Your task to perform on an android device: Clear the shopping cart on ebay. Image 0: 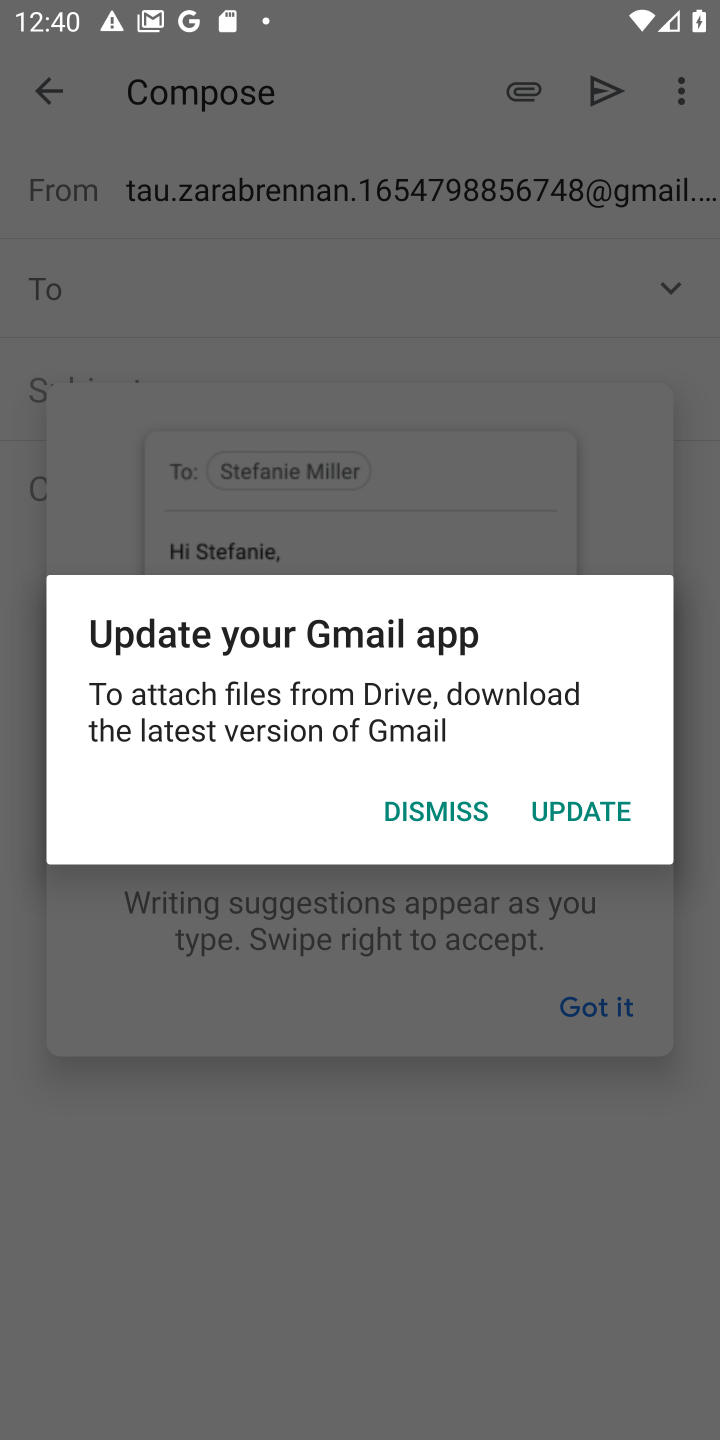
Step 0: click (432, 828)
Your task to perform on an android device: Clear the shopping cart on ebay. Image 1: 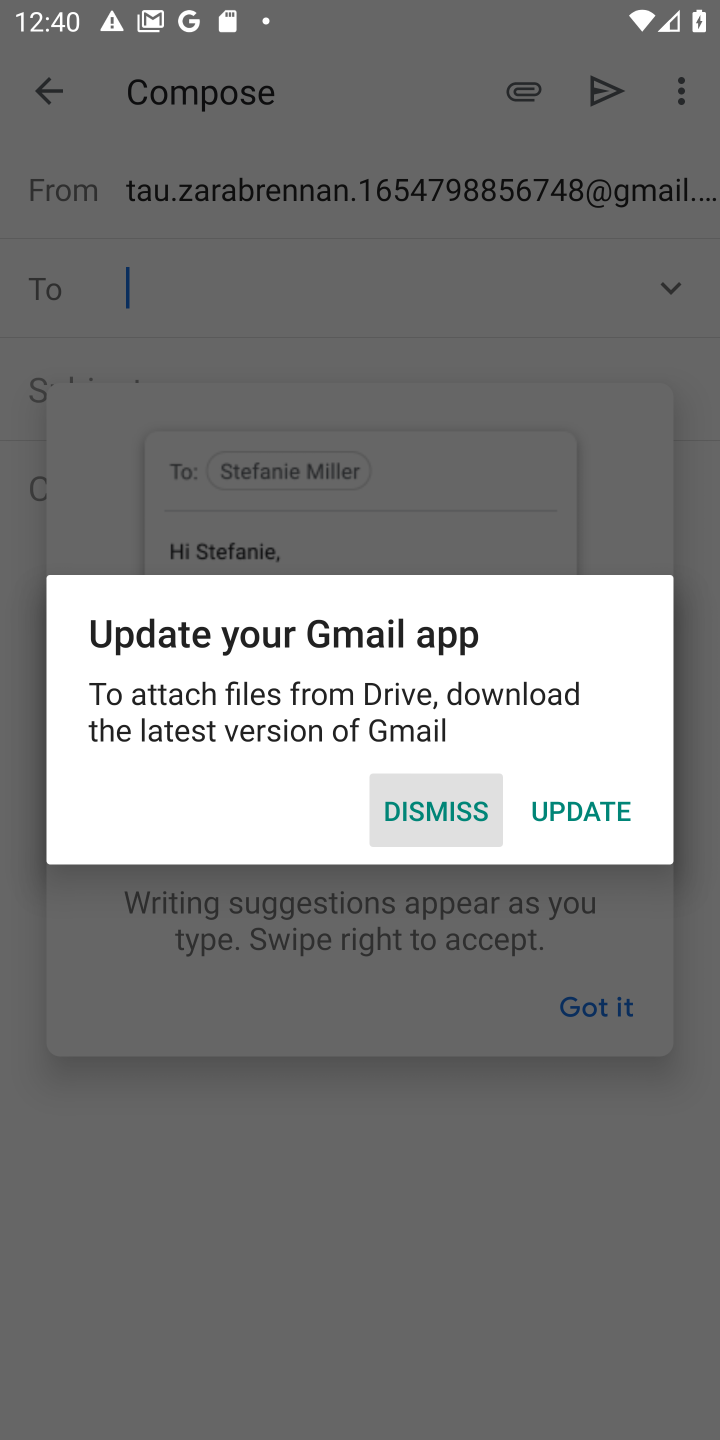
Step 1: press home button
Your task to perform on an android device: Clear the shopping cart on ebay. Image 2: 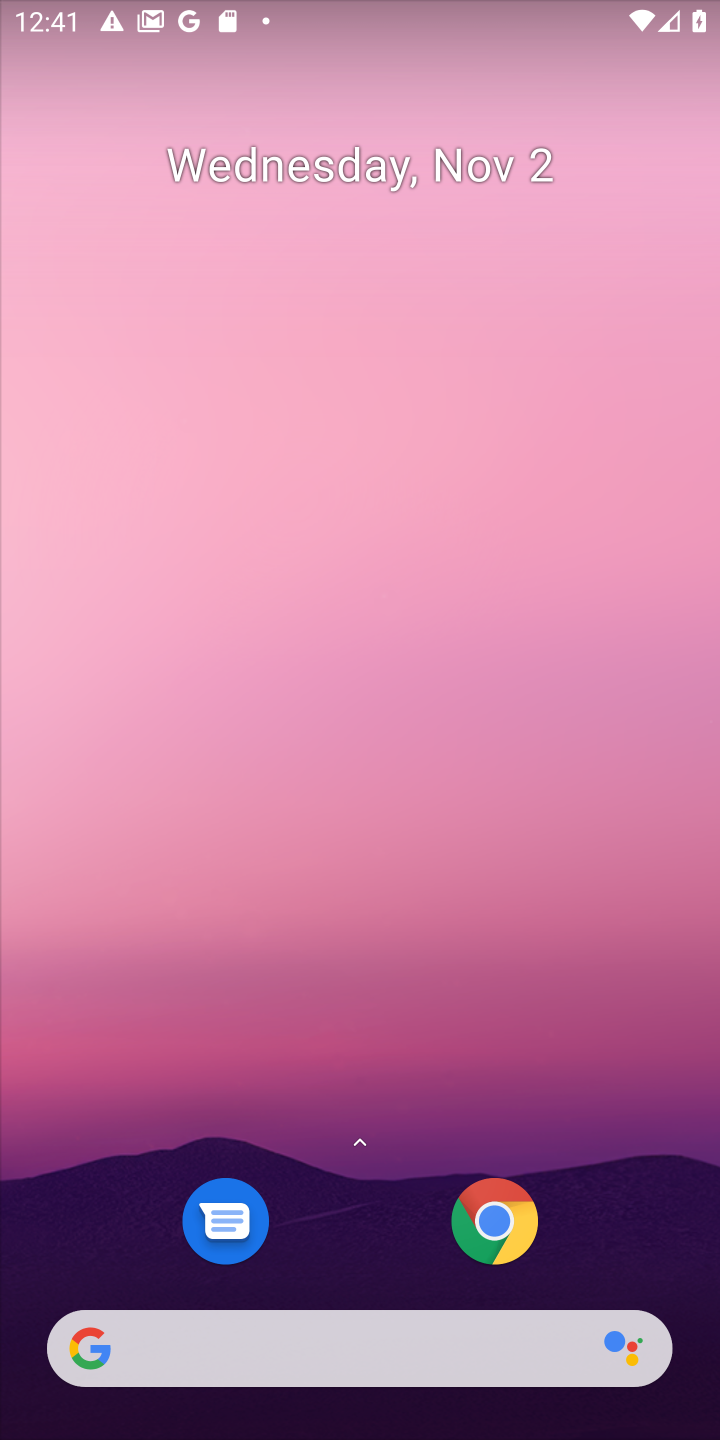
Step 2: click (284, 1360)
Your task to perform on an android device: Clear the shopping cart on ebay. Image 3: 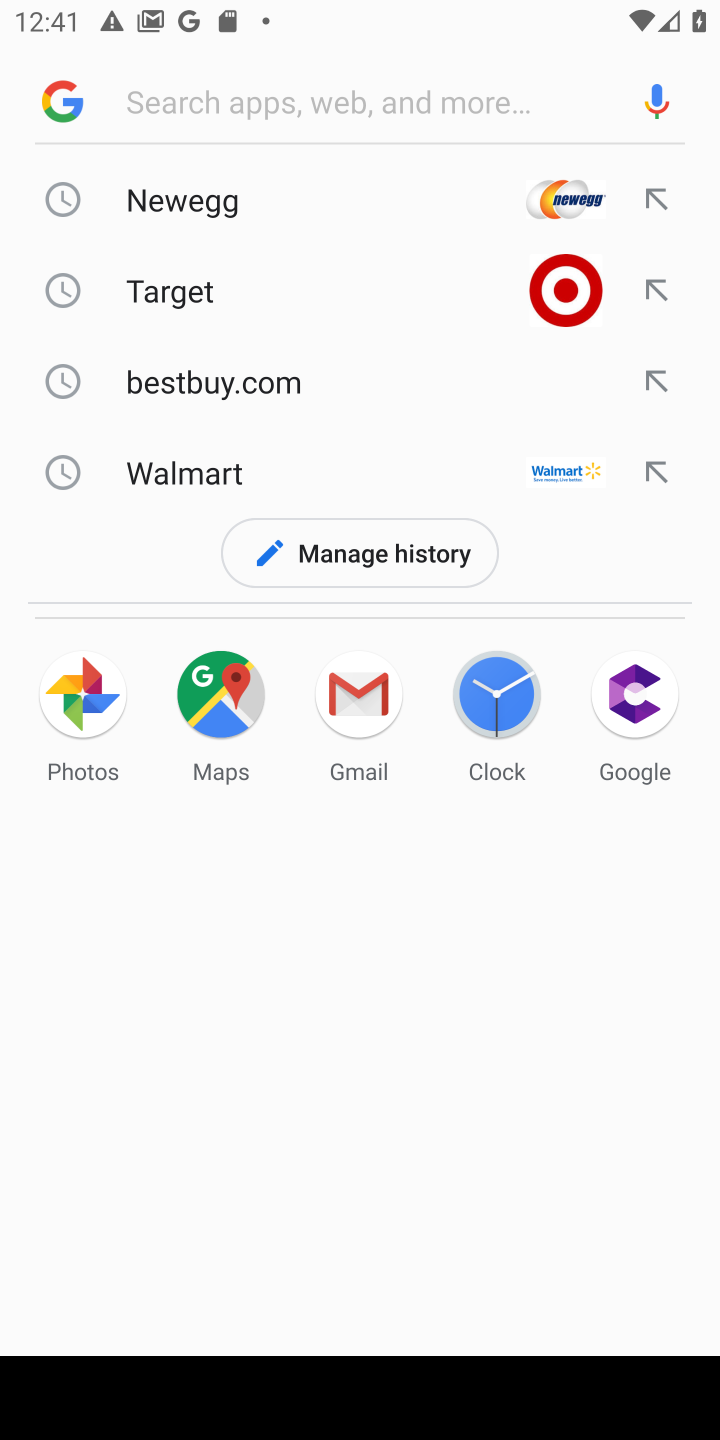
Step 3: type "ebay.com"
Your task to perform on an android device: Clear the shopping cart on ebay. Image 4: 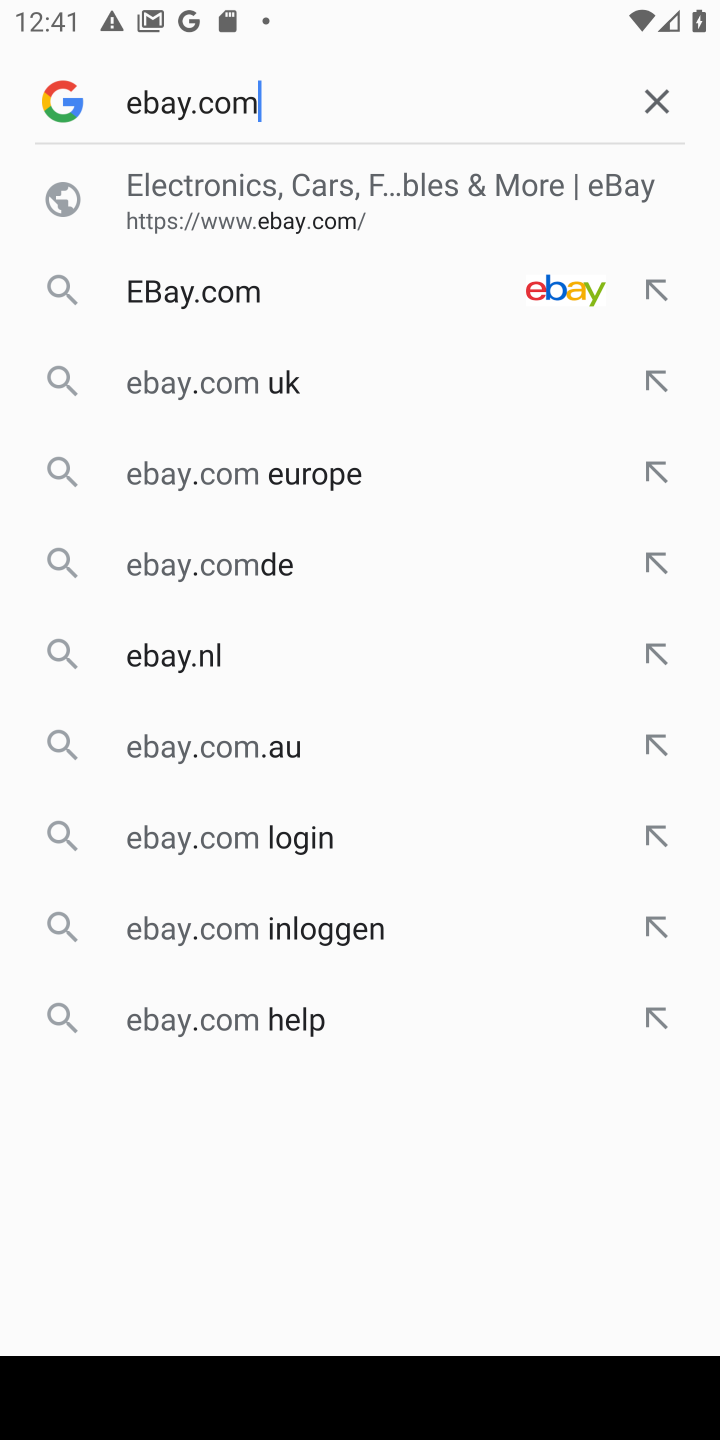
Step 4: click (273, 202)
Your task to perform on an android device: Clear the shopping cart on ebay. Image 5: 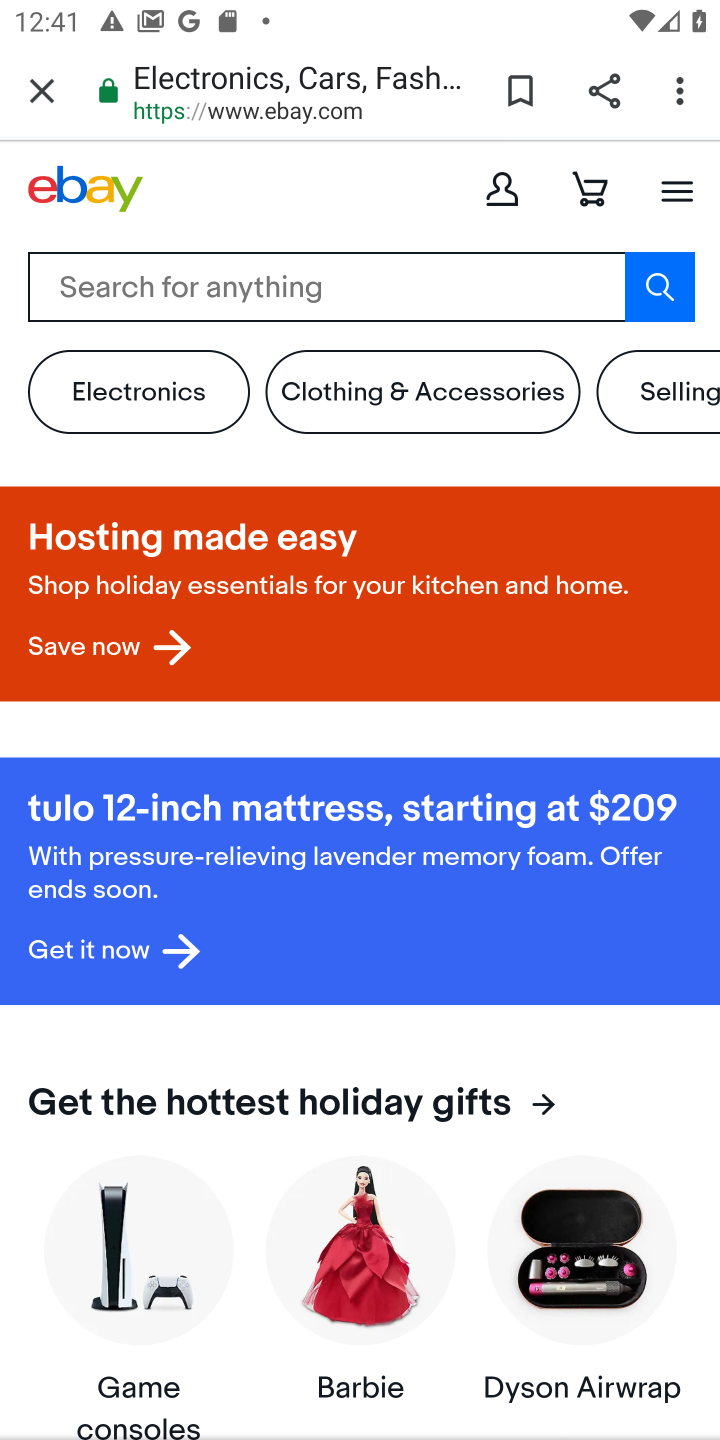
Step 5: click (339, 294)
Your task to perform on an android device: Clear the shopping cart on ebay. Image 6: 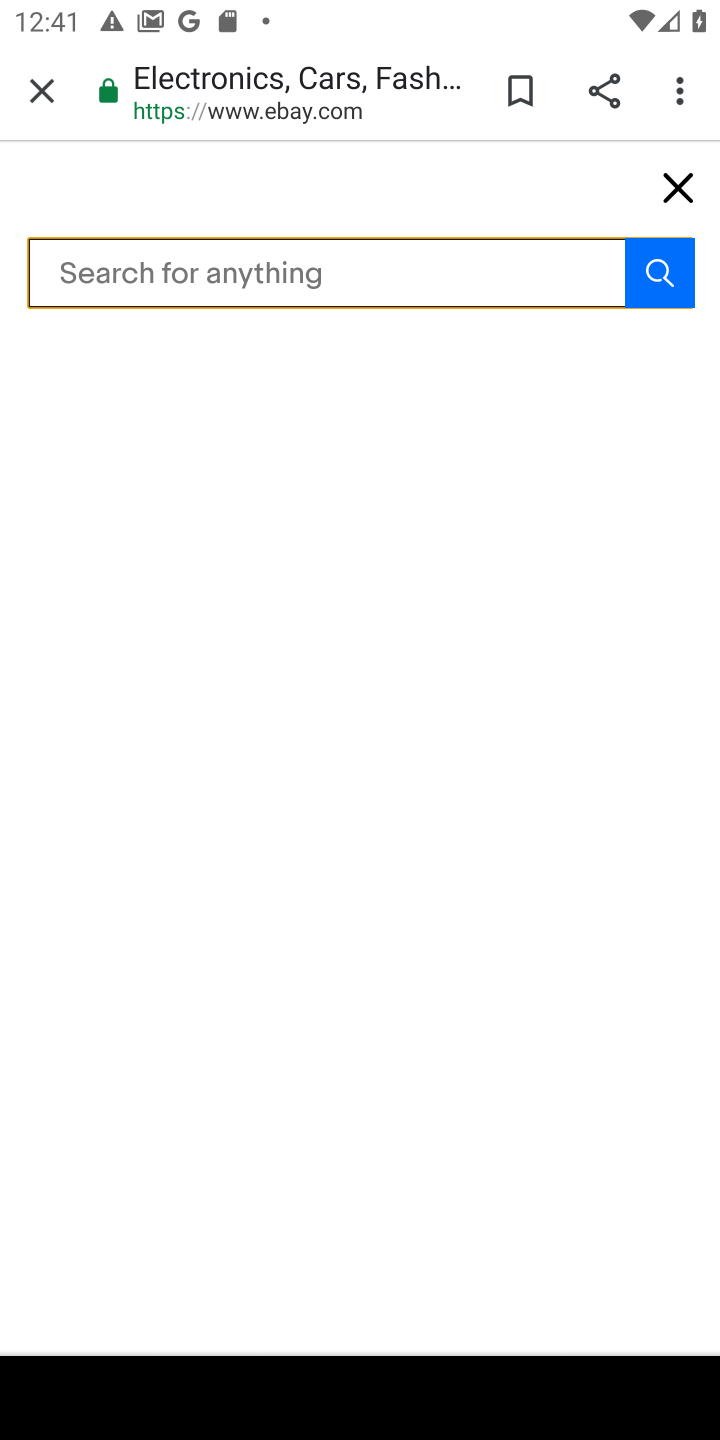
Step 6: click (677, 186)
Your task to perform on an android device: Clear the shopping cart on ebay. Image 7: 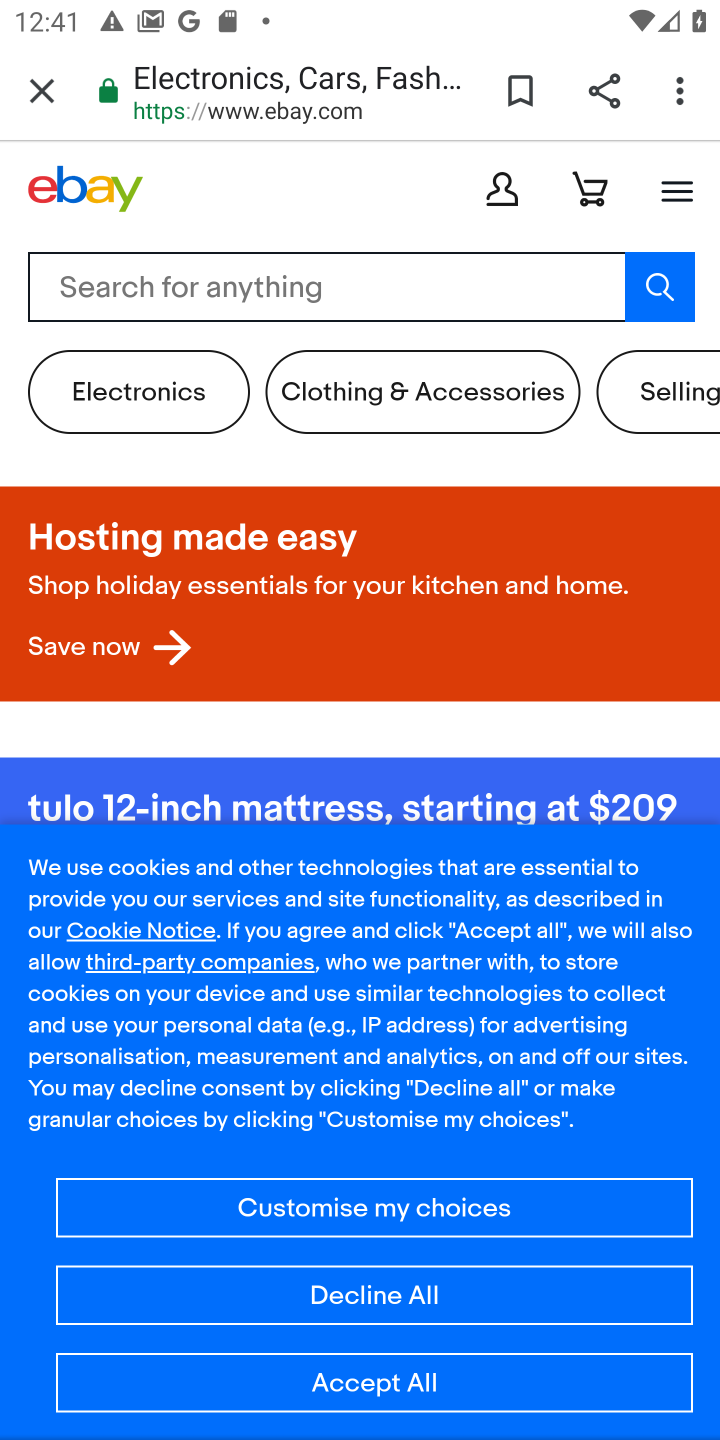
Step 7: click (578, 210)
Your task to perform on an android device: Clear the shopping cart on ebay. Image 8: 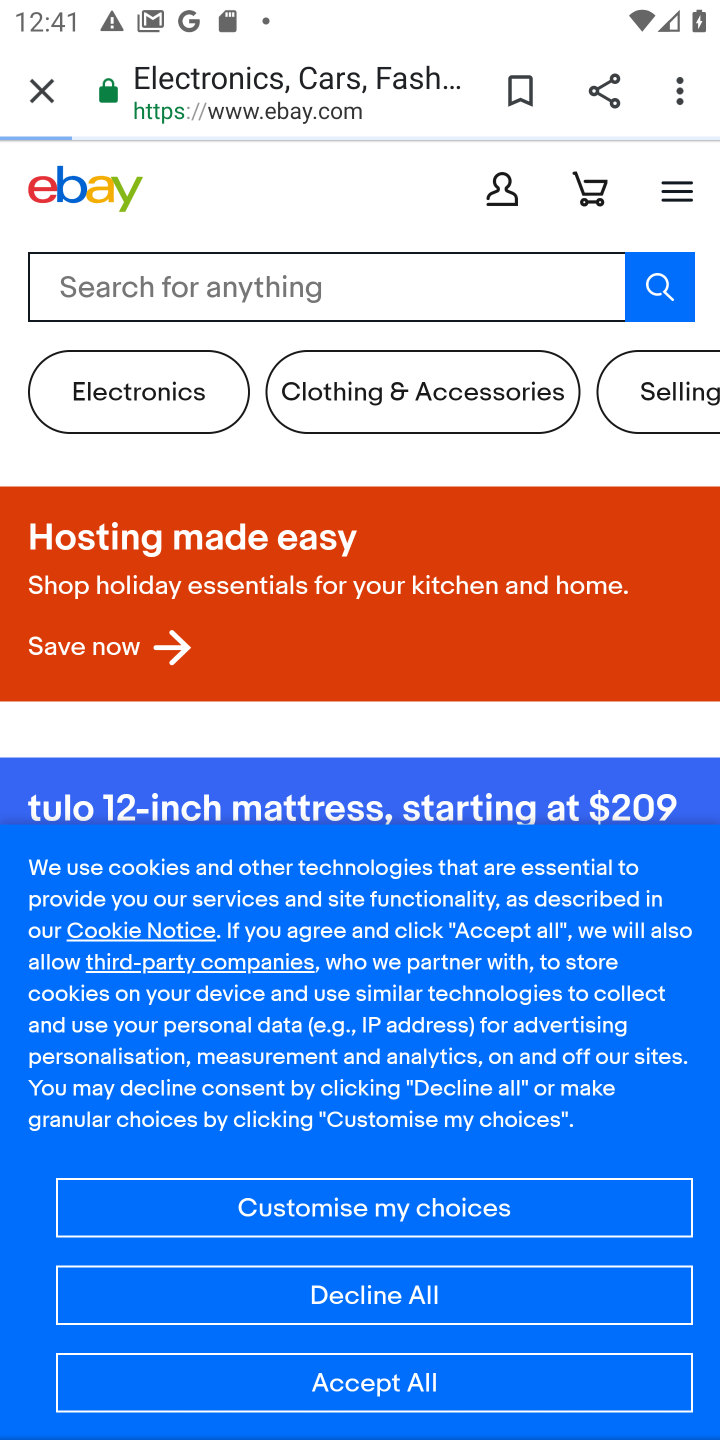
Step 8: task complete